Your task to perform on an android device: Go to Yahoo.com Image 0: 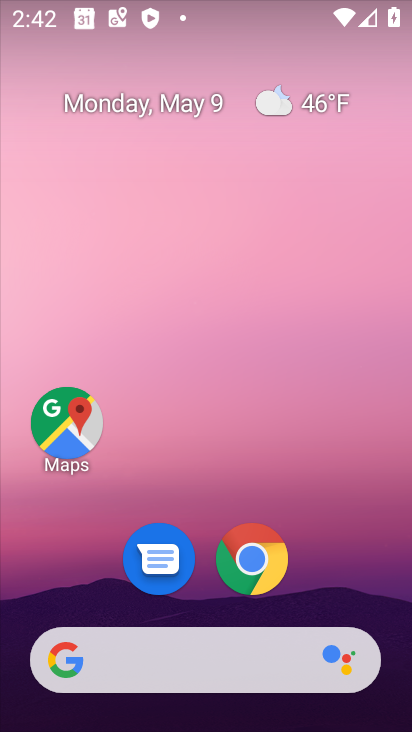
Step 0: click (252, 543)
Your task to perform on an android device: Go to Yahoo.com Image 1: 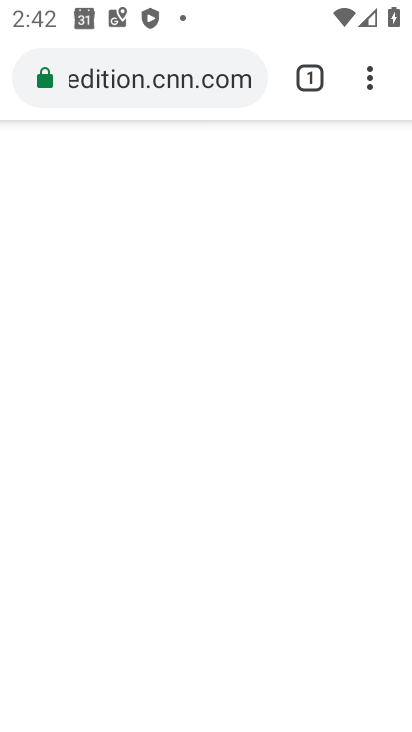
Step 1: click (312, 88)
Your task to perform on an android device: Go to Yahoo.com Image 2: 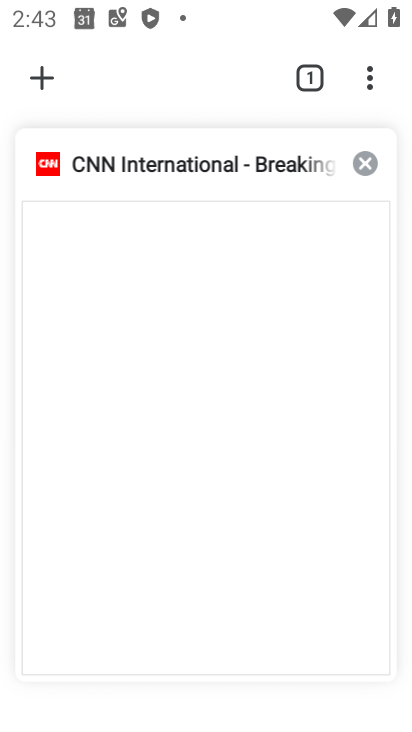
Step 2: click (45, 76)
Your task to perform on an android device: Go to Yahoo.com Image 3: 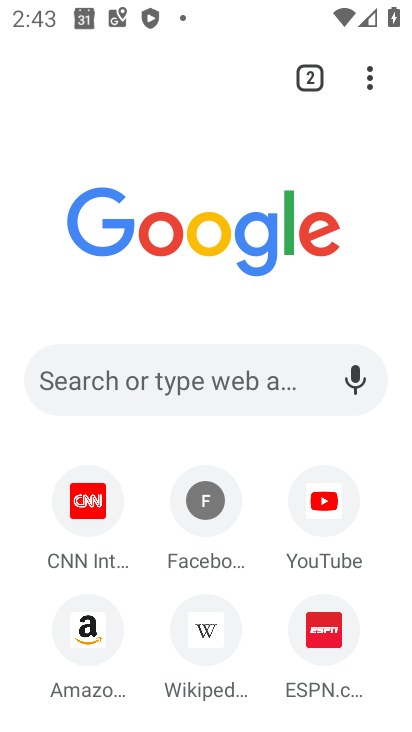
Step 3: click (215, 372)
Your task to perform on an android device: Go to Yahoo.com Image 4: 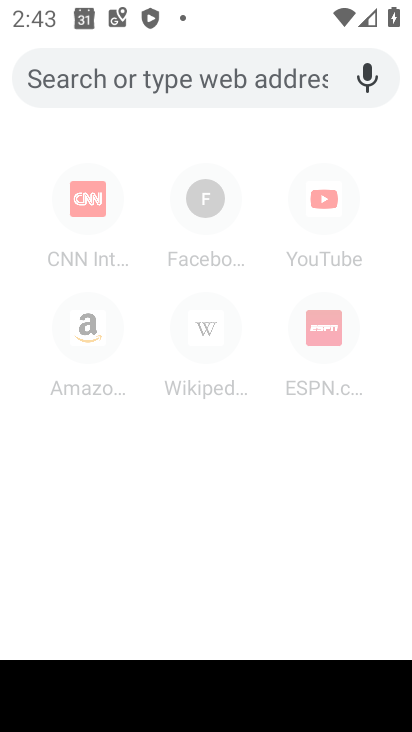
Step 4: type "yahoo"
Your task to perform on an android device: Go to Yahoo.com Image 5: 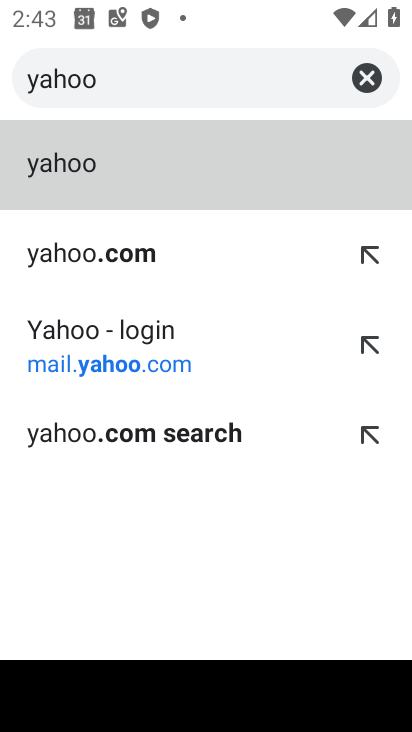
Step 5: click (157, 264)
Your task to perform on an android device: Go to Yahoo.com Image 6: 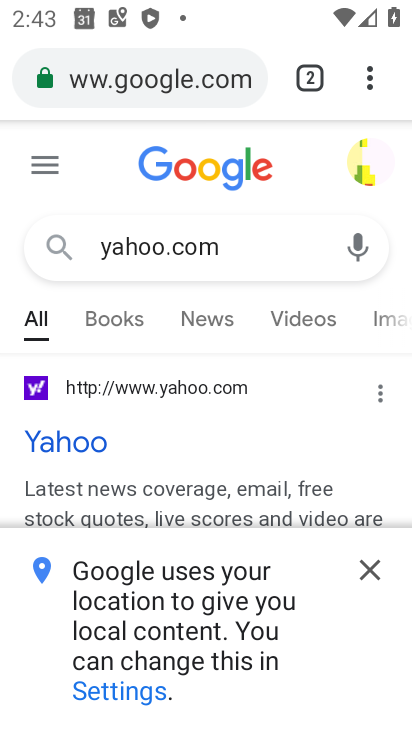
Step 6: click (68, 452)
Your task to perform on an android device: Go to Yahoo.com Image 7: 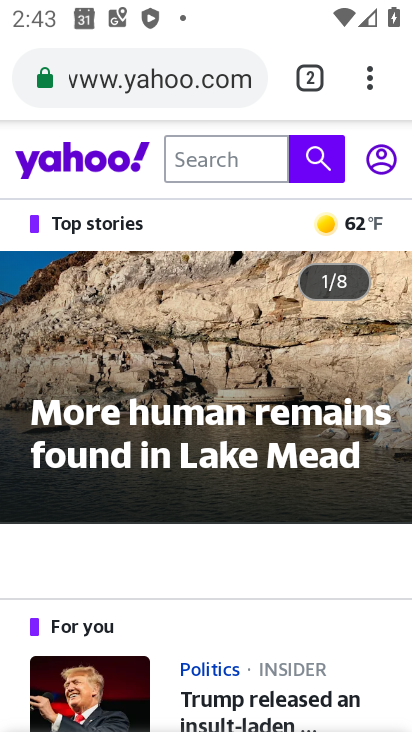
Step 7: task complete